Your task to perform on an android device: turn off smart reply in the gmail app Image 0: 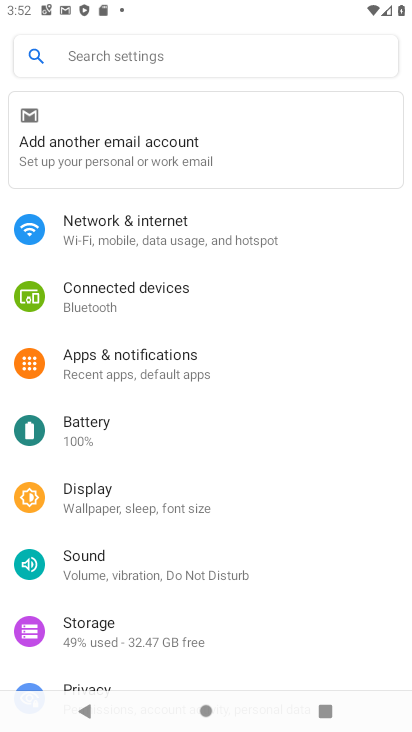
Step 0: press home button
Your task to perform on an android device: turn off smart reply in the gmail app Image 1: 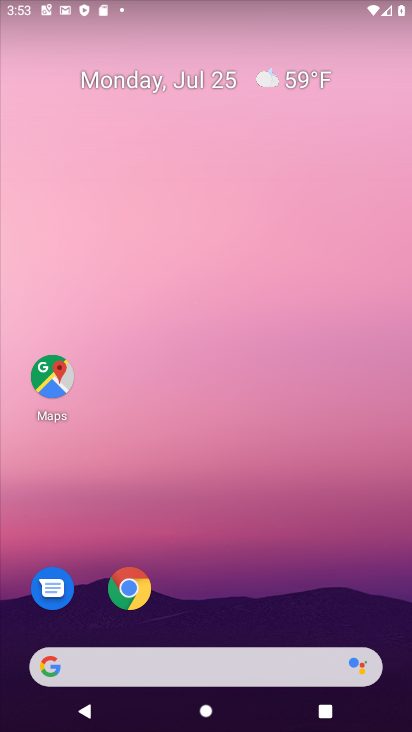
Step 1: drag from (331, 575) to (340, 79)
Your task to perform on an android device: turn off smart reply in the gmail app Image 2: 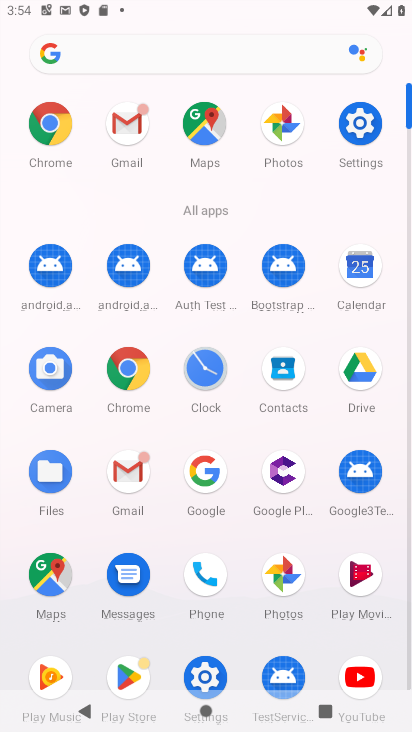
Step 2: click (130, 464)
Your task to perform on an android device: turn off smart reply in the gmail app Image 3: 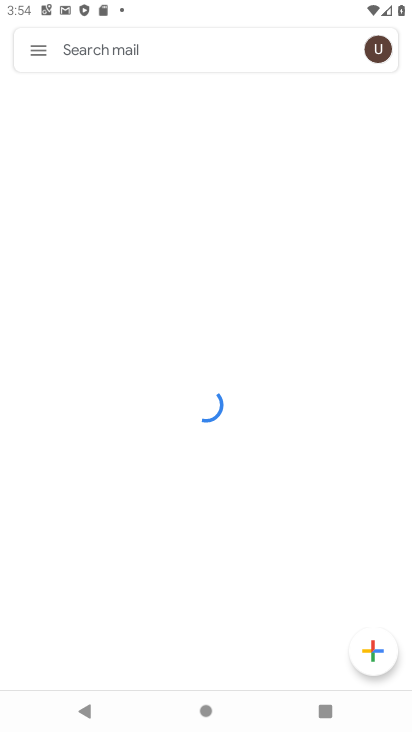
Step 3: click (29, 54)
Your task to perform on an android device: turn off smart reply in the gmail app Image 4: 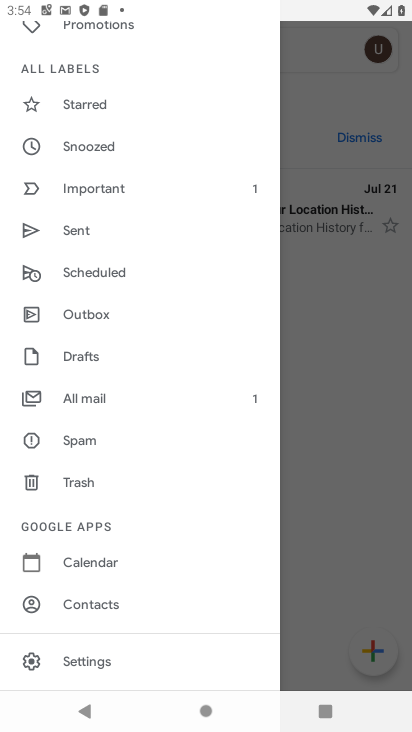
Step 4: click (89, 660)
Your task to perform on an android device: turn off smart reply in the gmail app Image 5: 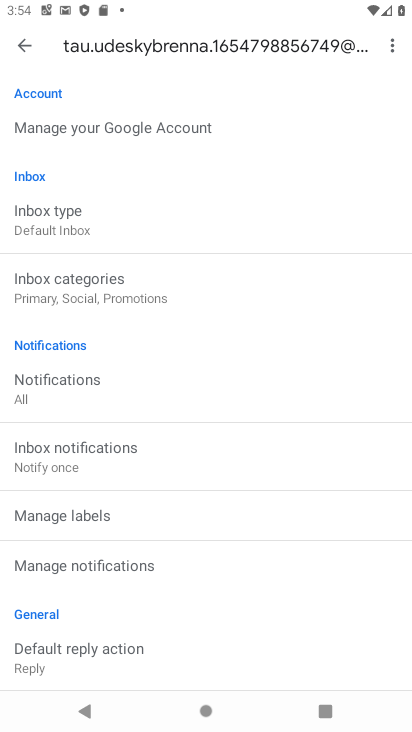
Step 5: task complete